Your task to perform on an android device: empty trash in the gmail app Image 0: 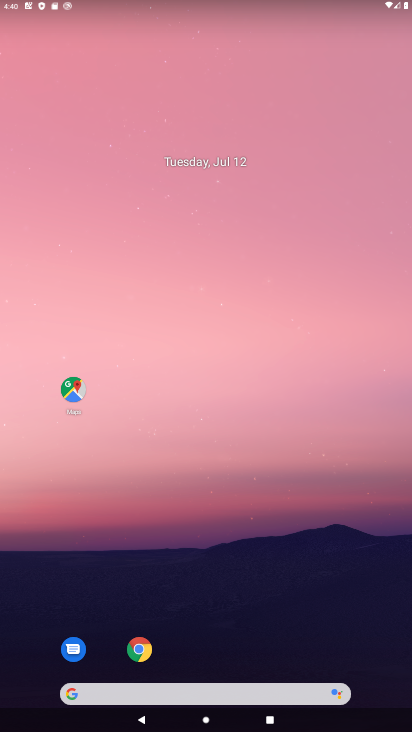
Step 0: click (182, 202)
Your task to perform on an android device: empty trash in the gmail app Image 1: 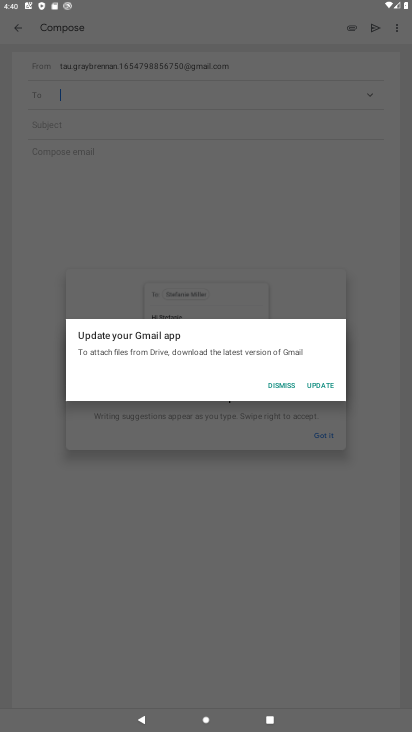
Step 1: press home button
Your task to perform on an android device: empty trash in the gmail app Image 2: 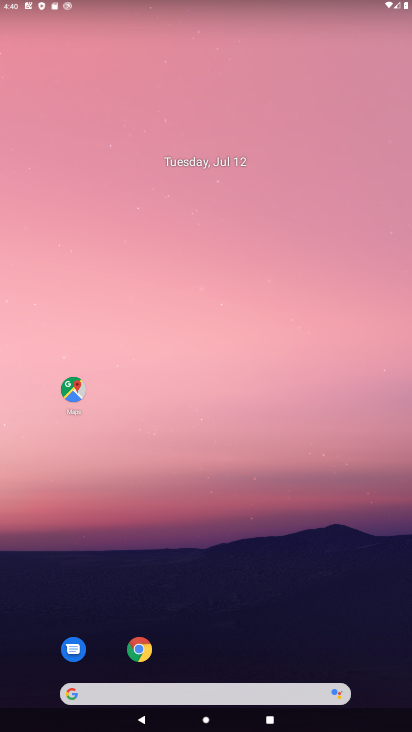
Step 2: drag from (194, 696) to (252, 222)
Your task to perform on an android device: empty trash in the gmail app Image 3: 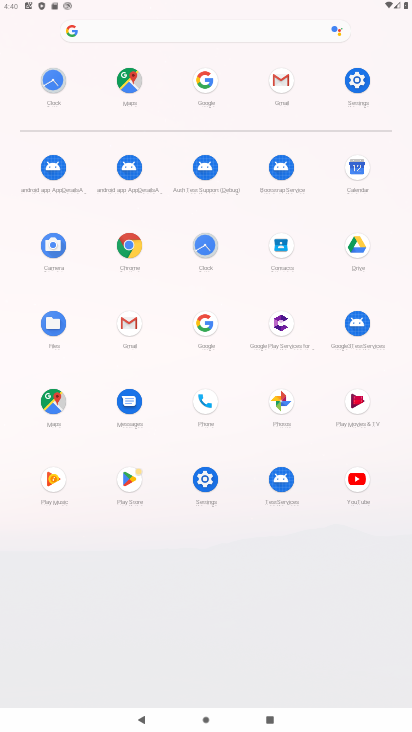
Step 3: click (280, 81)
Your task to perform on an android device: empty trash in the gmail app Image 4: 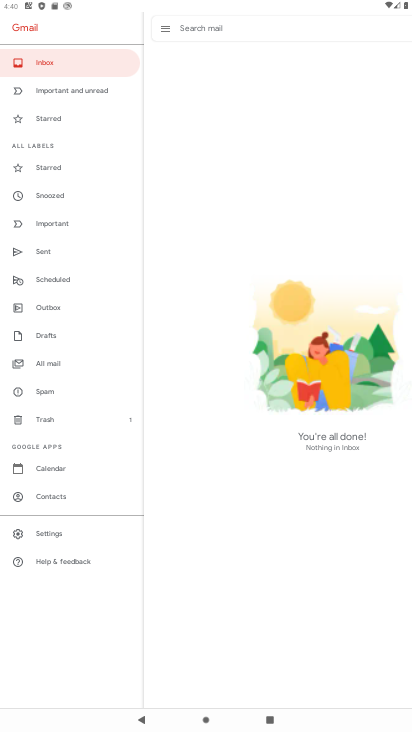
Step 4: click (50, 424)
Your task to perform on an android device: empty trash in the gmail app Image 5: 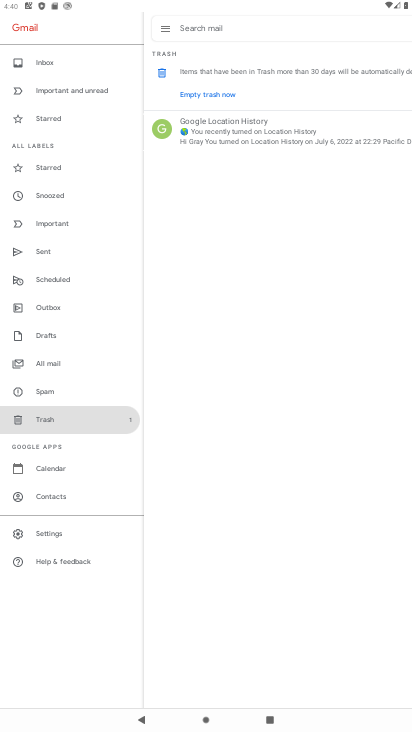
Step 5: click (225, 94)
Your task to perform on an android device: empty trash in the gmail app Image 6: 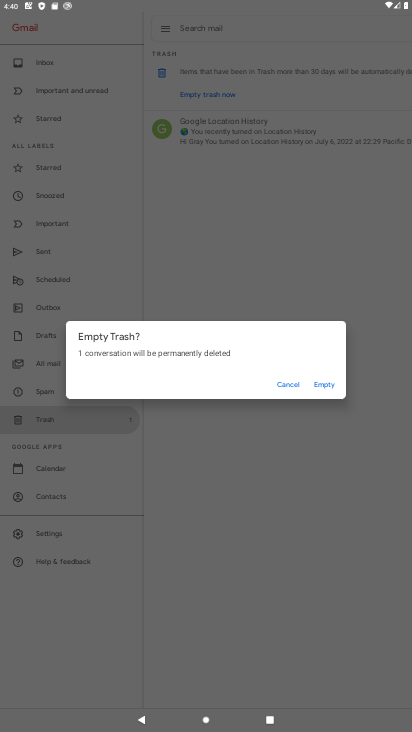
Step 6: click (329, 383)
Your task to perform on an android device: empty trash in the gmail app Image 7: 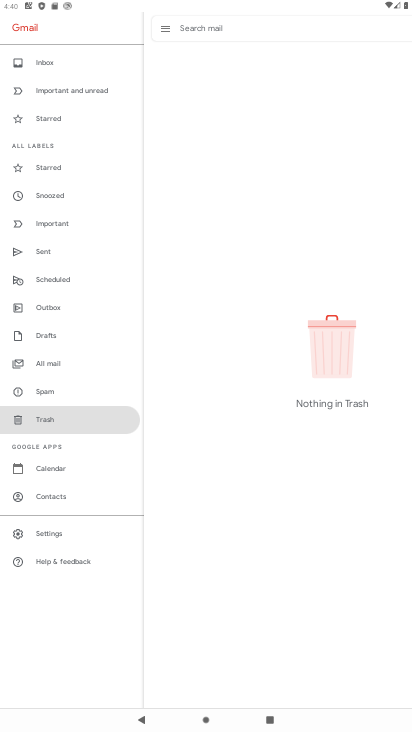
Step 7: task complete